Your task to perform on an android device: Show me popular videos on Youtube Image 0: 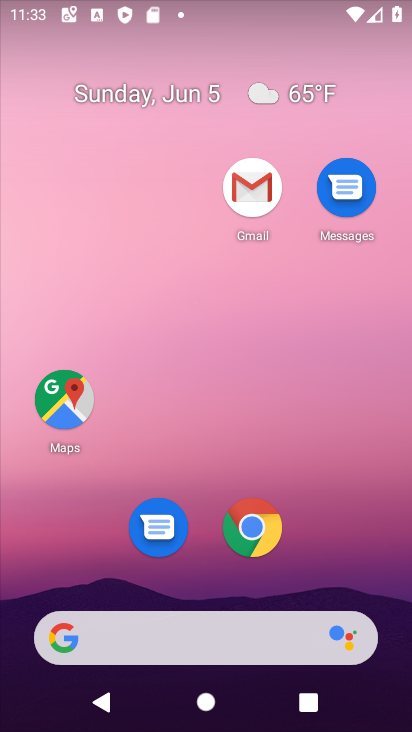
Step 0: drag from (369, 518) to (245, 200)
Your task to perform on an android device: Show me popular videos on Youtube Image 1: 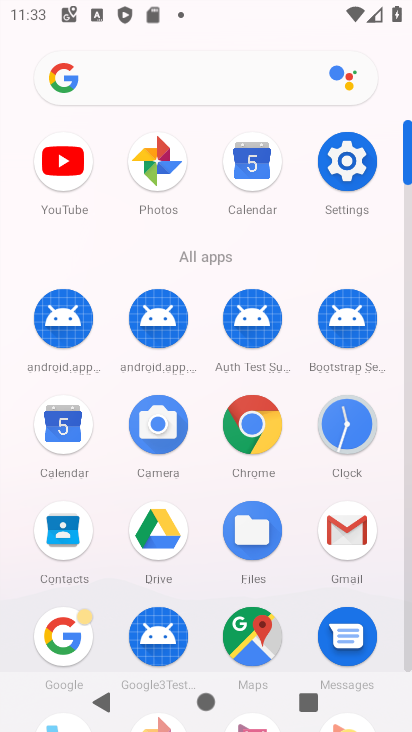
Step 1: click (69, 157)
Your task to perform on an android device: Show me popular videos on Youtube Image 2: 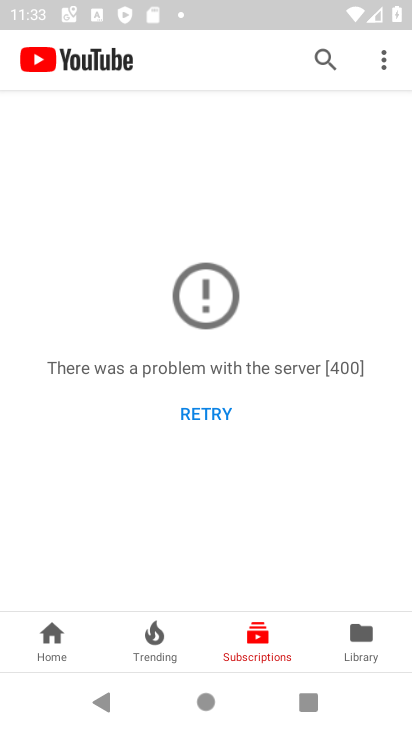
Step 2: click (51, 644)
Your task to perform on an android device: Show me popular videos on Youtube Image 3: 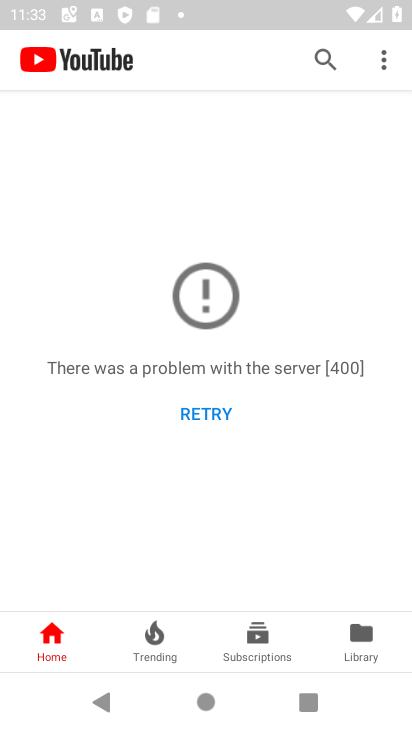
Step 3: task complete